Your task to perform on an android device: Do I have any events this weekend? Image 0: 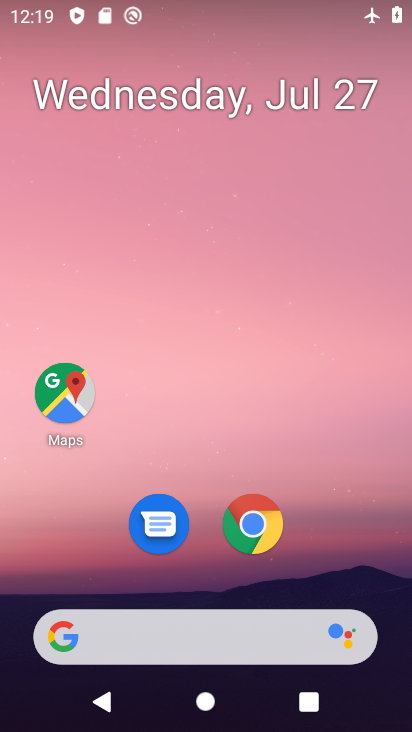
Step 0: drag from (339, 522) to (369, 76)
Your task to perform on an android device: Do I have any events this weekend? Image 1: 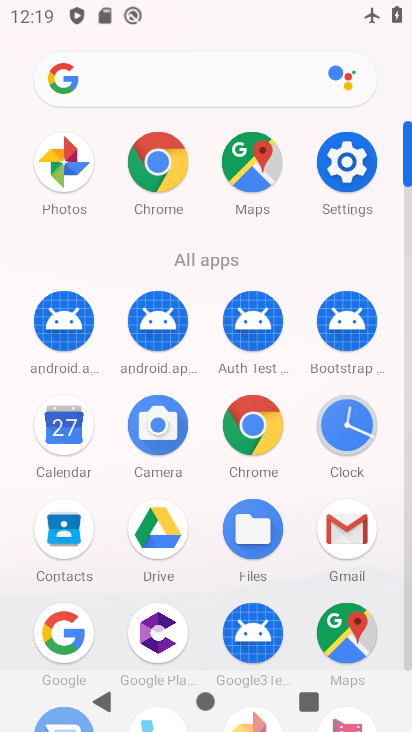
Step 1: click (70, 431)
Your task to perform on an android device: Do I have any events this weekend? Image 2: 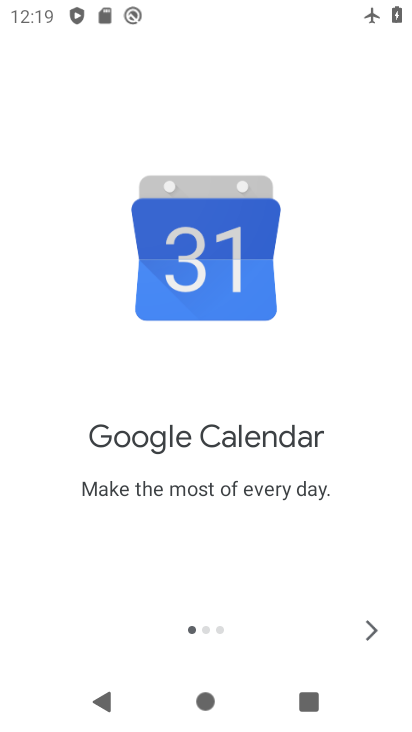
Step 2: click (368, 630)
Your task to perform on an android device: Do I have any events this weekend? Image 3: 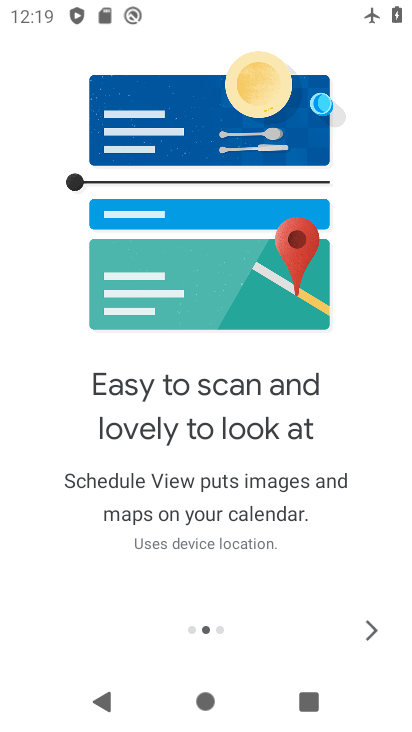
Step 3: click (368, 630)
Your task to perform on an android device: Do I have any events this weekend? Image 4: 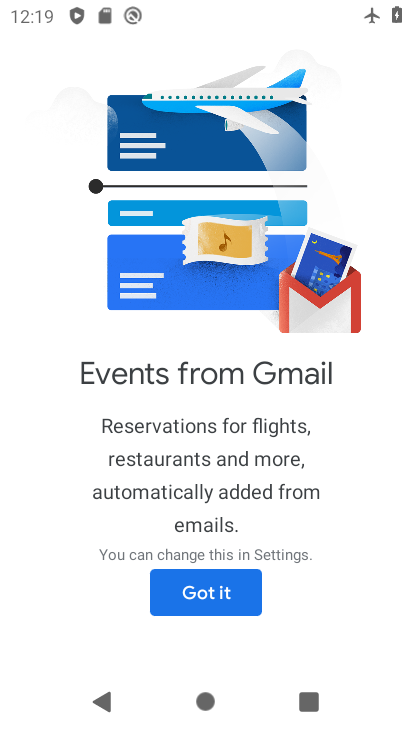
Step 4: click (251, 596)
Your task to perform on an android device: Do I have any events this weekend? Image 5: 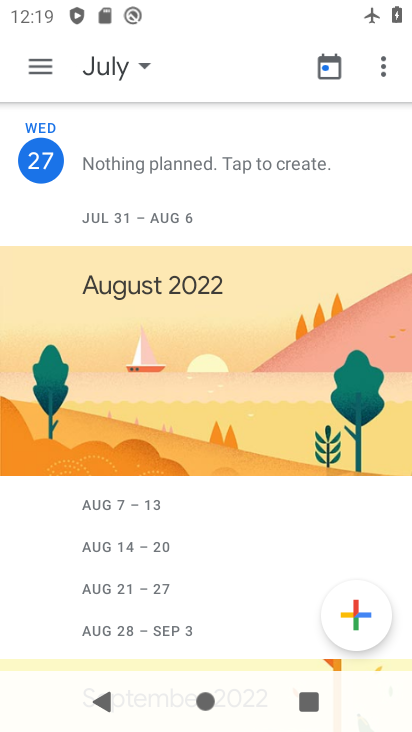
Step 5: click (49, 65)
Your task to perform on an android device: Do I have any events this weekend? Image 6: 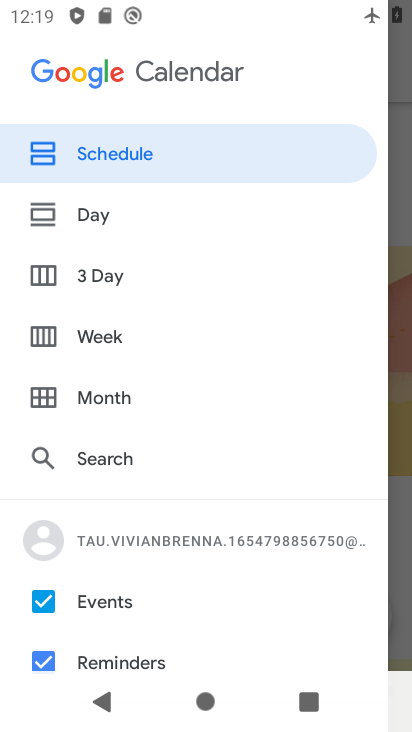
Step 6: click (40, 338)
Your task to perform on an android device: Do I have any events this weekend? Image 7: 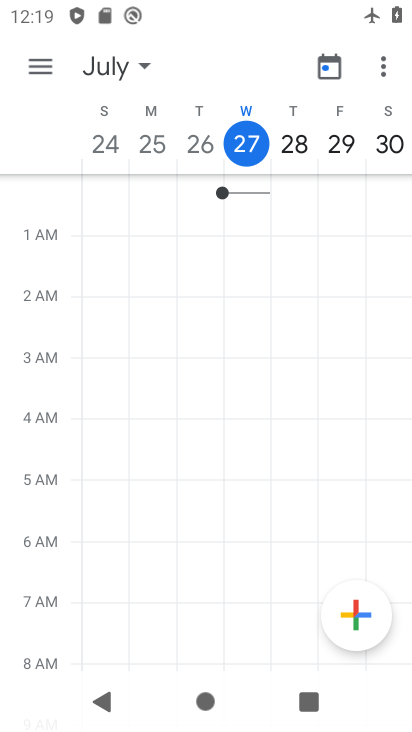
Step 7: click (391, 132)
Your task to perform on an android device: Do I have any events this weekend? Image 8: 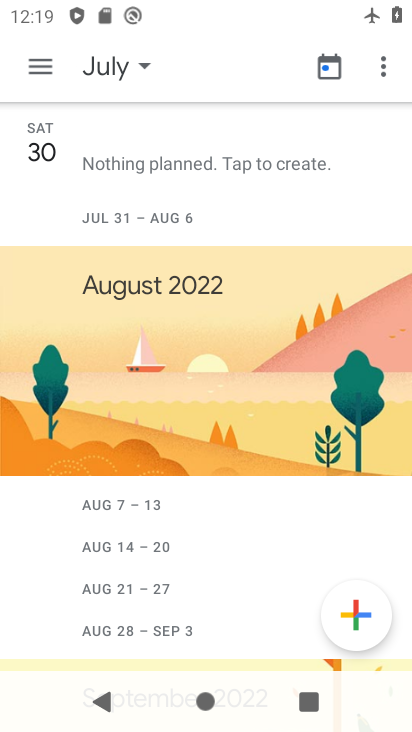
Step 8: task complete